Your task to perform on an android device: What's on my calendar today? Image 0: 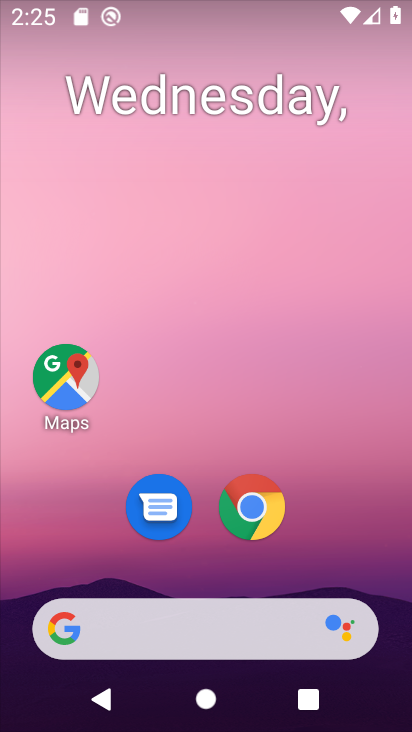
Step 0: drag from (315, 388) to (315, 60)
Your task to perform on an android device: What's on my calendar today? Image 1: 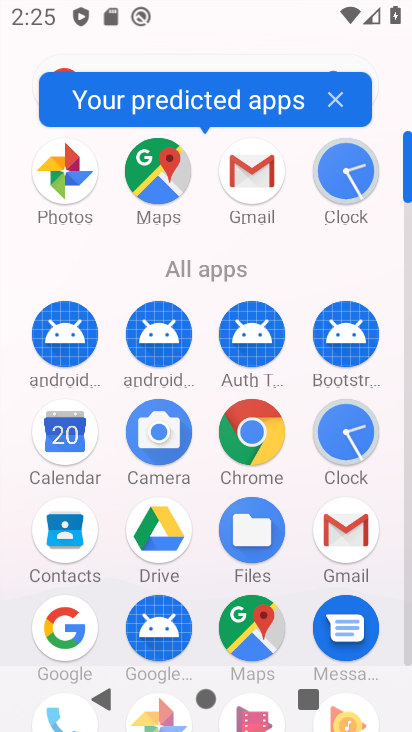
Step 1: click (76, 429)
Your task to perform on an android device: What's on my calendar today? Image 2: 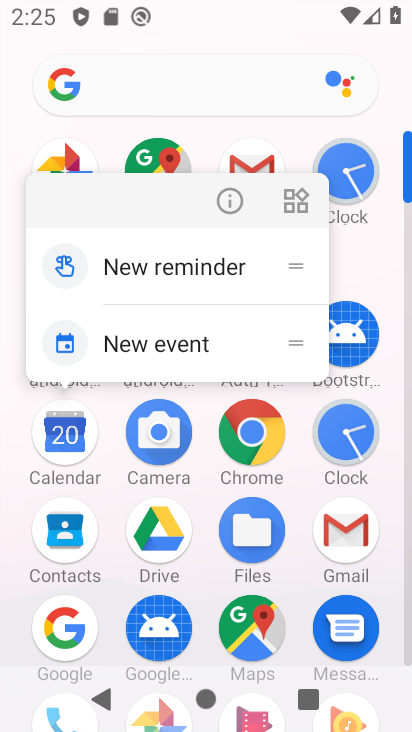
Step 2: click (55, 434)
Your task to perform on an android device: What's on my calendar today? Image 3: 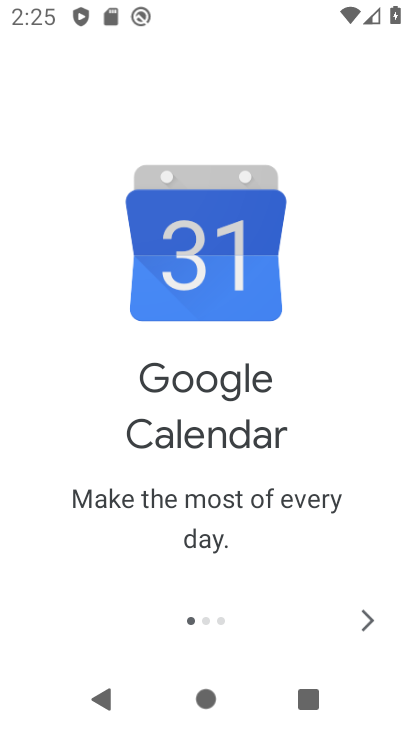
Step 3: click (355, 611)
Your task to perform on an android device: What's on my calendar today? Image 4: 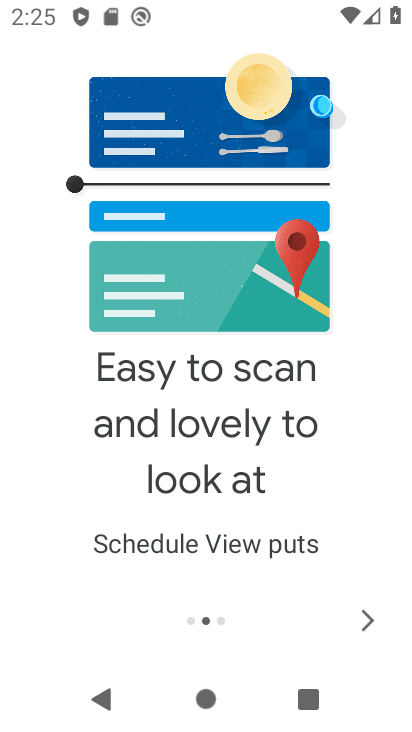
Step 4: click (366, 614)
Your task to perform on an android device: What's on my calendar today? Image 5: 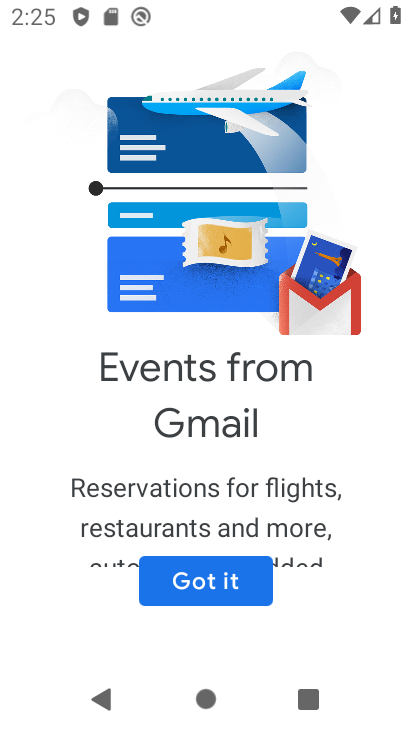
Step 5: click (236, 573)
Your task to perform on an android device: What's on my calendar today? Image 6: 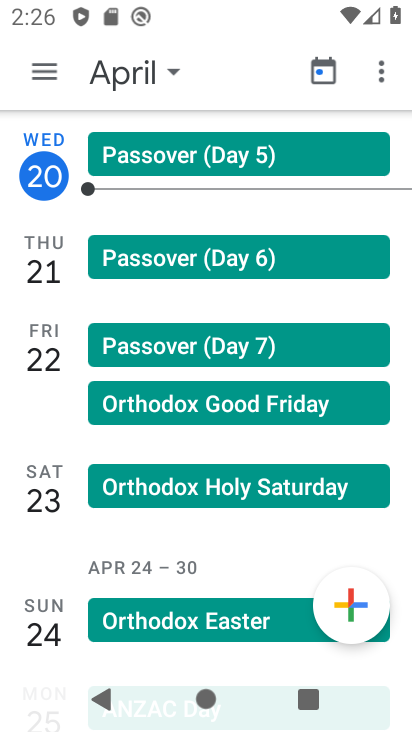
Step 6: drag from (195, 207) to (188, 374)
Your task to perform on an android device: What's on my calendar today? Image 7: 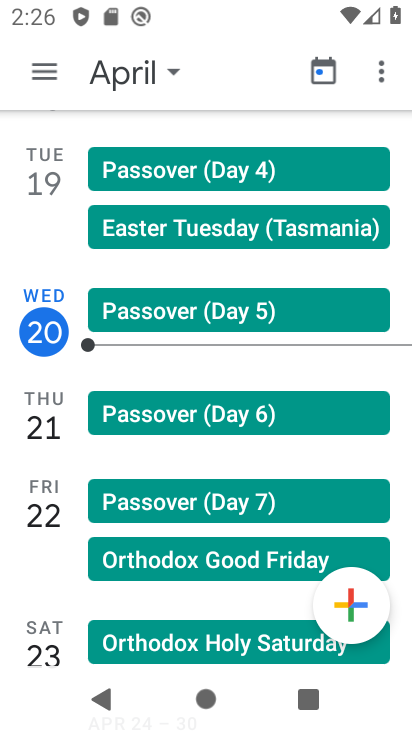
Step 7: click (44, 65)
Your task to perform on an android device: What's on my calendar today? Image 8: 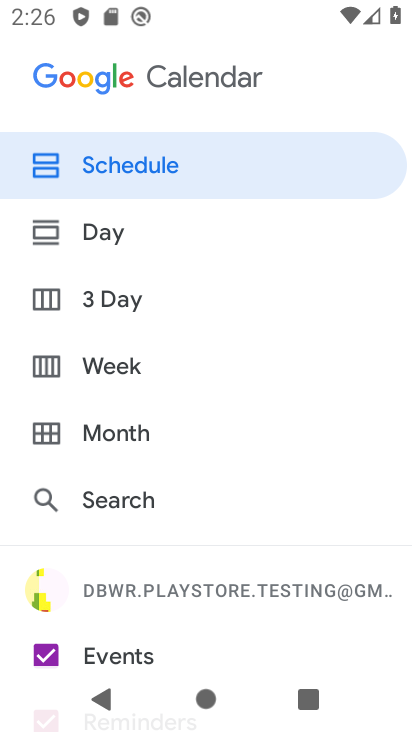
Step 8: drag from (177, 526) to (213, 621)
Your task to perform on an android device: What's on my calendar today? Image 9: 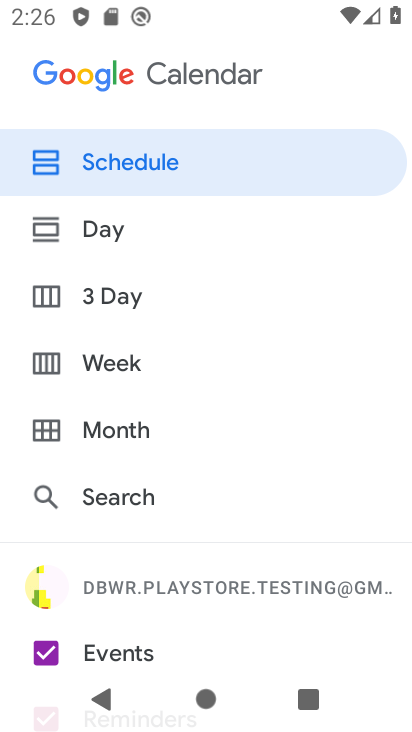
Step 9: click (131, 229)
Your task to perform on an android device: What's on my calendar today? Image 10: 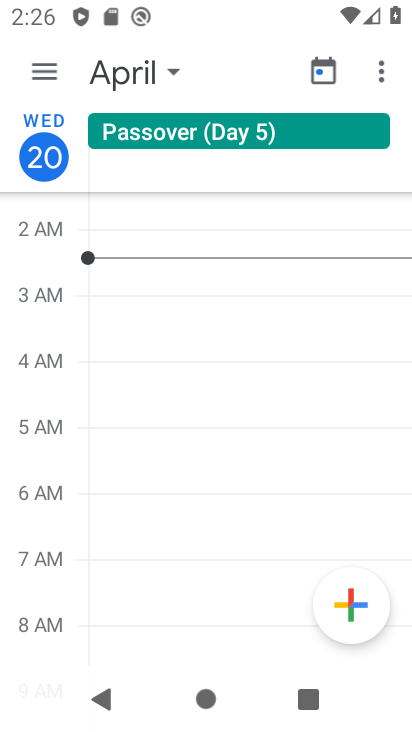
Step 10: task complete